Your task to perform on an android device: Open Google Maps Image 0: 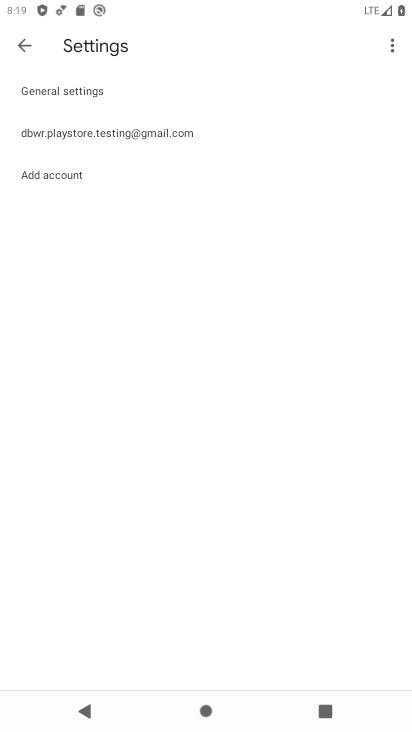
Step 0: press home button
Your task to perform on an android device: Open Google Maps Image 1: 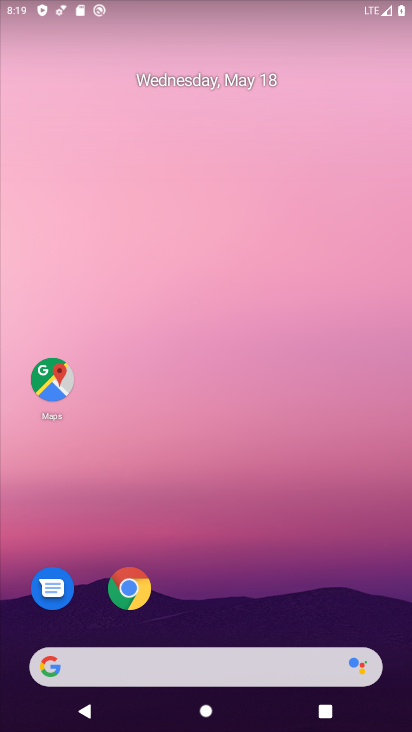
Step 1: click (49, 385)
Your task to perform on an android device: Open Google Maps Image 2: 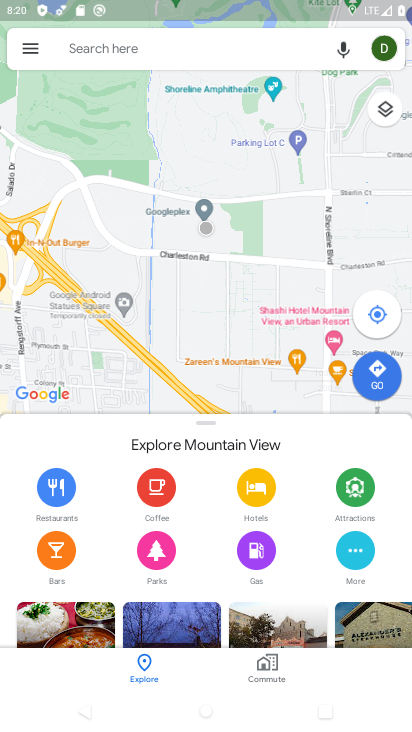
Step 2: task complete